Your task to perform on an android device: open app "Truecaller" Image 0: 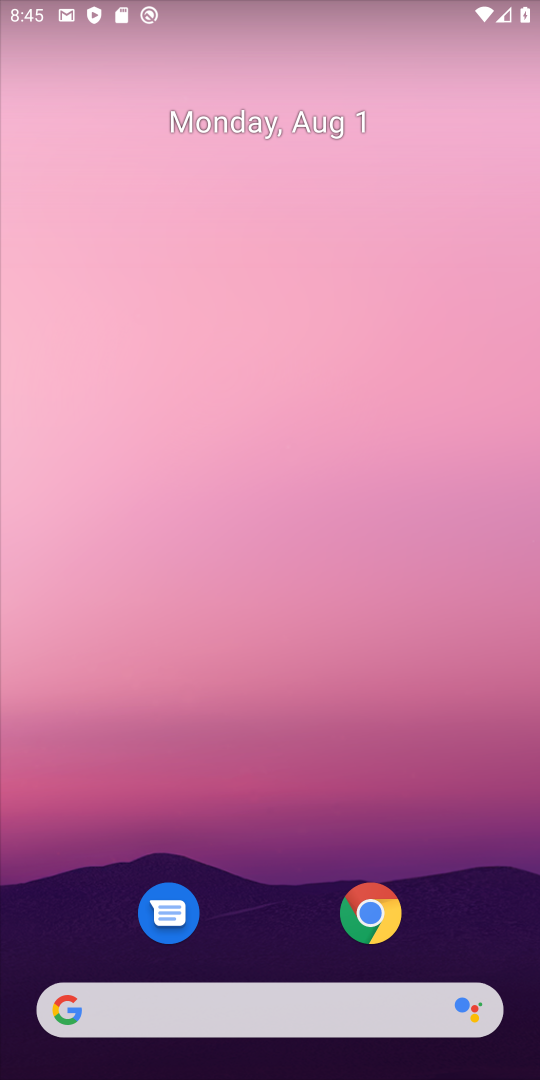
Step 0: drag from (223, 989) to (120, 57)
Your task to perform on an android device: open app "Truecaller" Image 1: 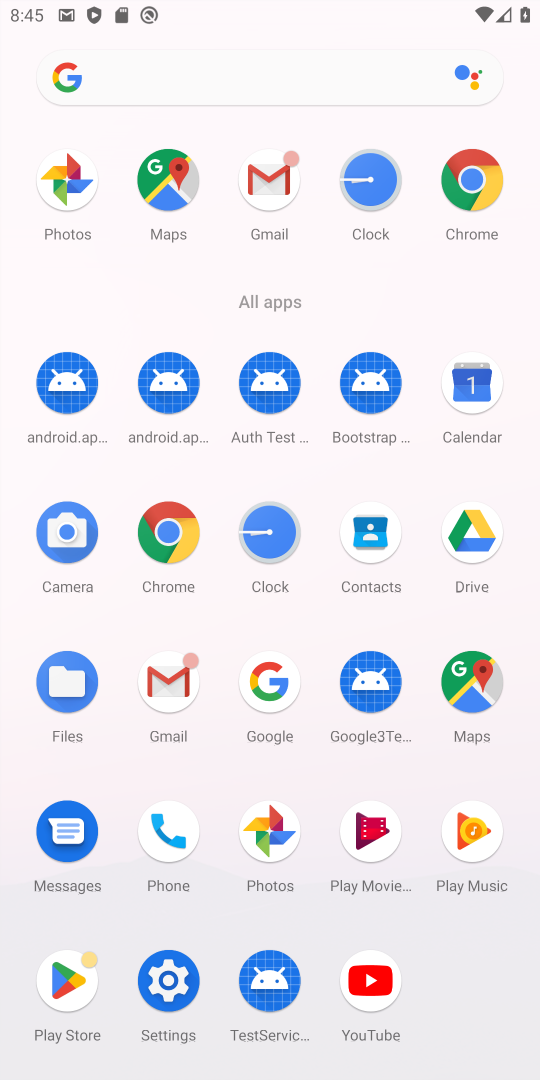
Step 1: click (71, 981)
Your task to perform on an android device: open app "Truecaller" Image 2: 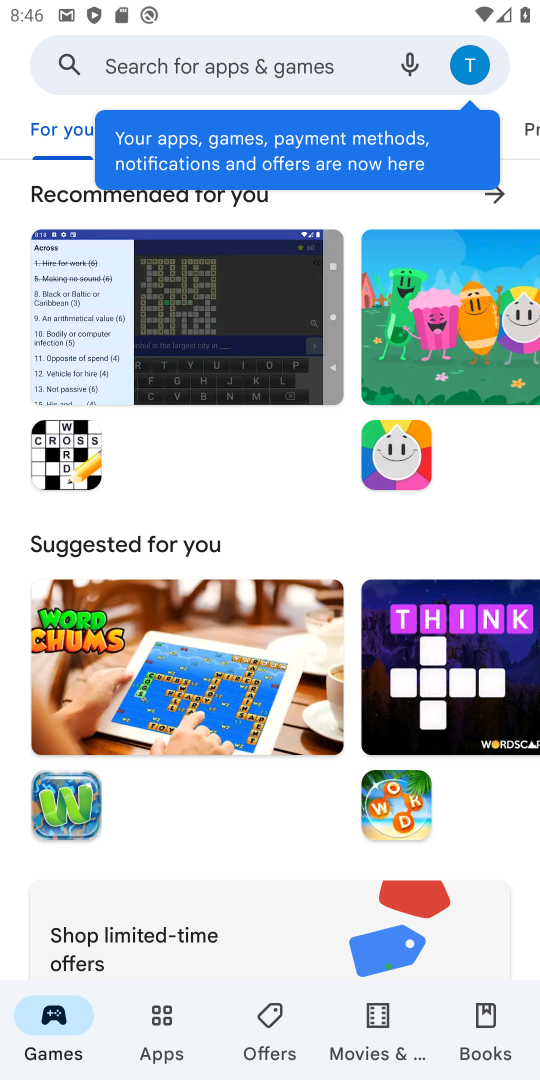
Step 2: click (272, 69)
Your task to perform on an android device: open app "Truecaller" Image 3: 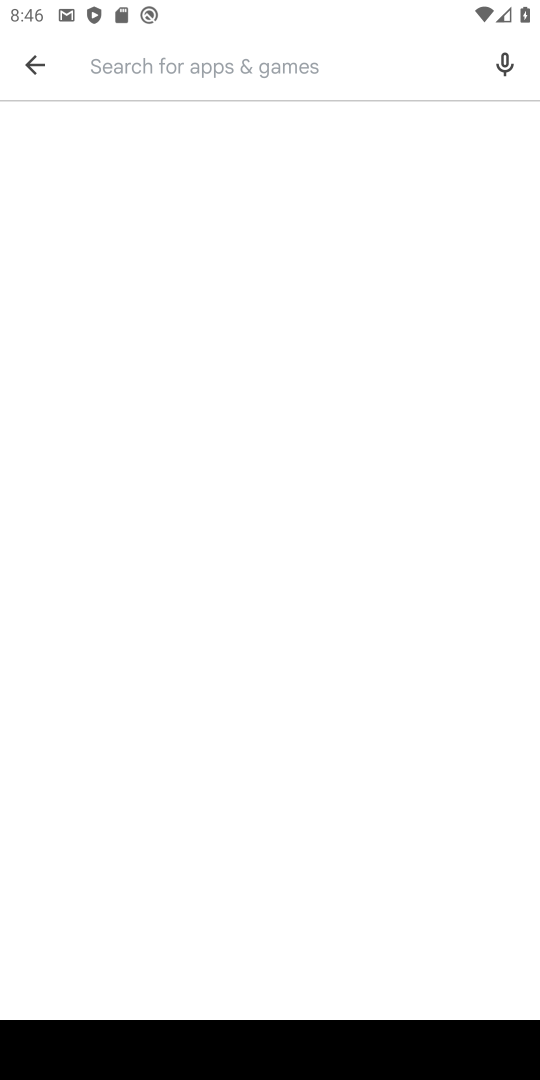
Step 3: type "truecaller"
Your task to perform on an android device: open app "Truecaller" Image 4: 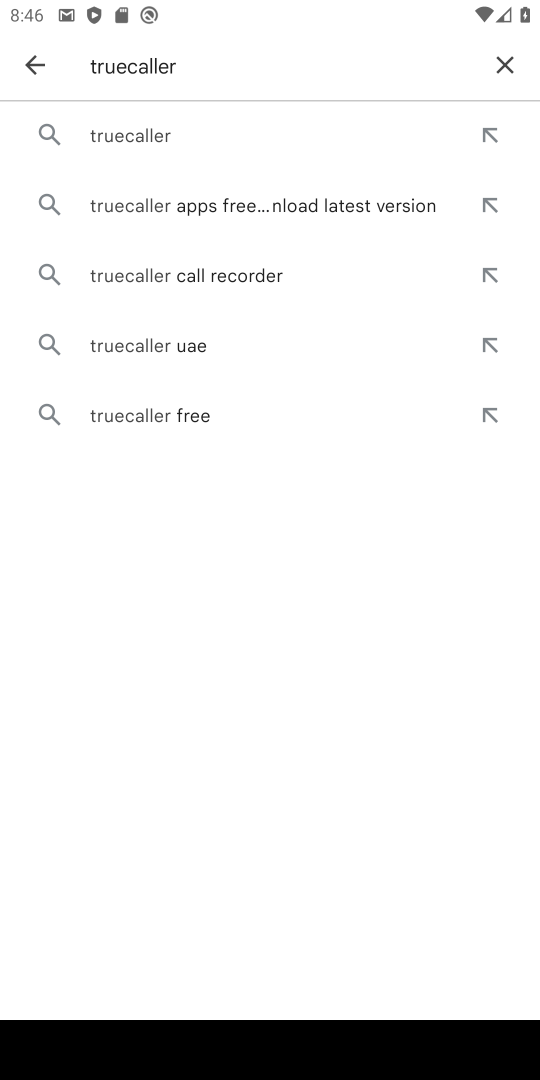
Step 4: click (83, 127)
Your task to perform on an android device: open app "Truecaller" Image 5: 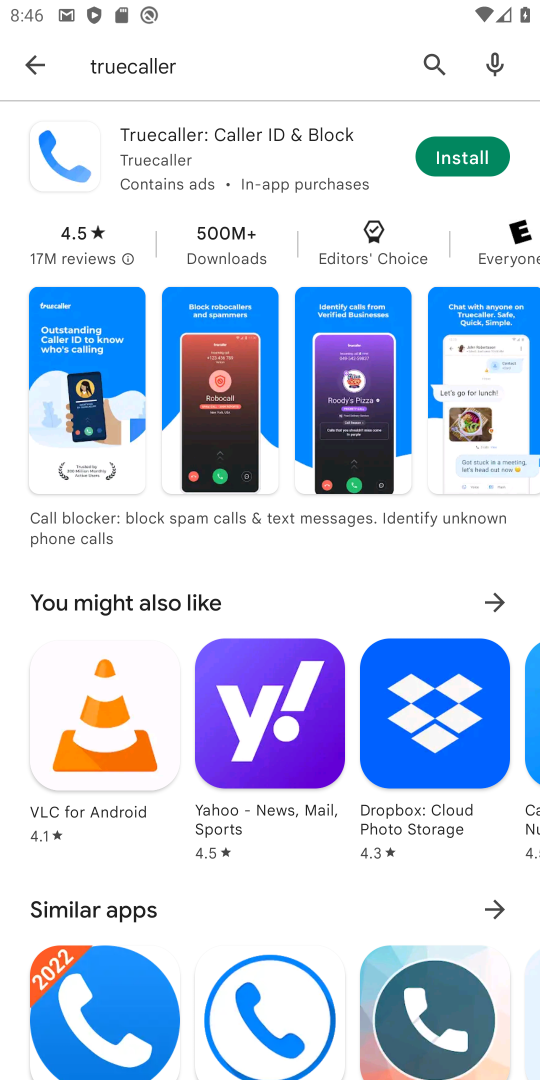
Step 5: task complete